Your task to perform on an android device: Turn off the flashlight Image 0: 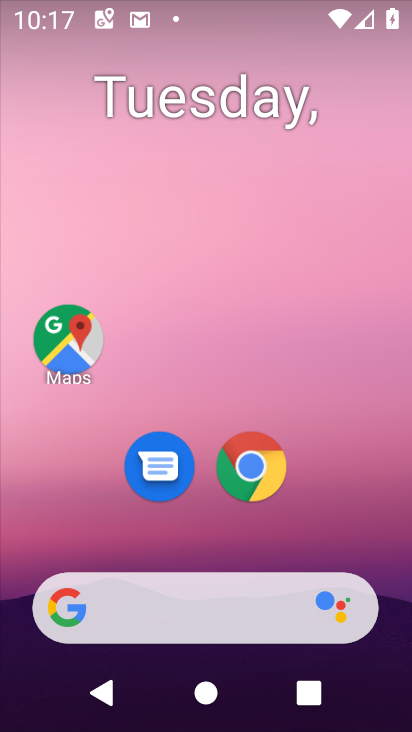
Step 0: press home button
Your task to perform on an android device: Turn off the flashlight Image 1: 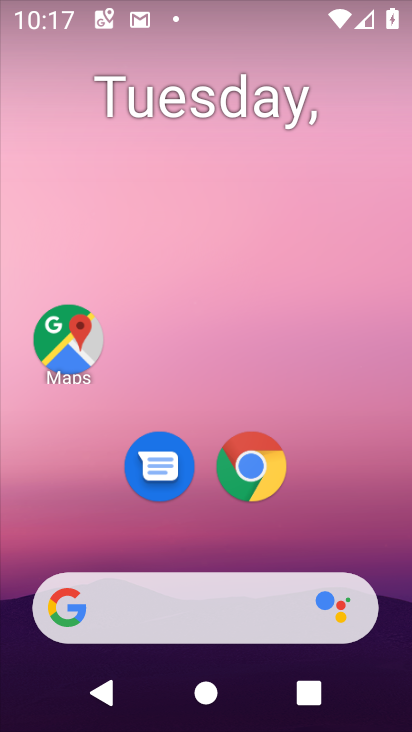
Step 1: drag from (245, 634) to (244, 185)
Your task to perform on an android device: Turn off the flashlight Image 2: 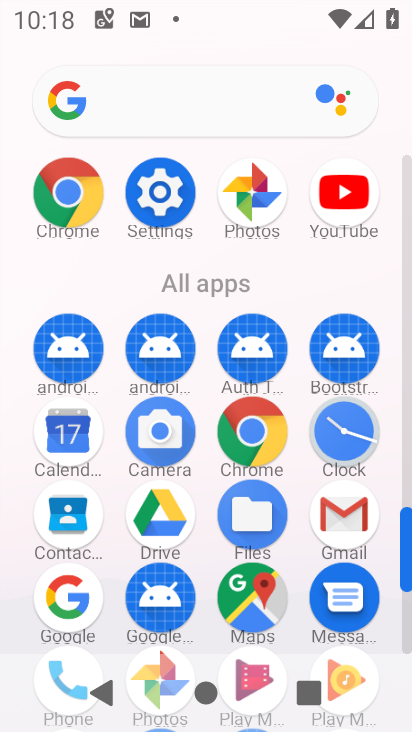
Step 2: click (160, 194)
Your task to perform on an android device: Turn off the flashlight Image 3: 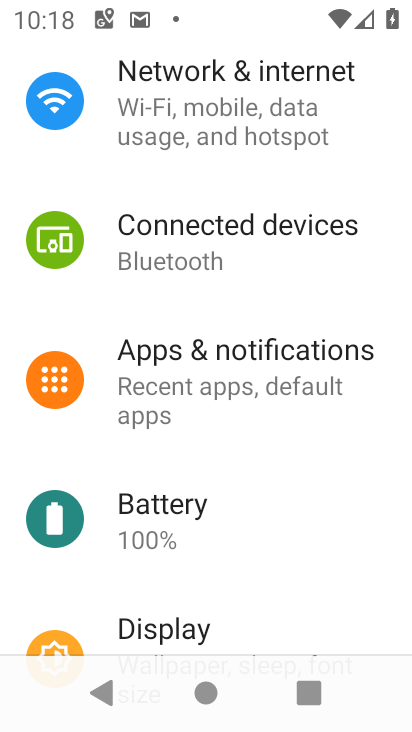
Step 3: drag from (168, 221) to (102, 567)
Your task to perform on an android device: Turn off the flashlight Image 4: 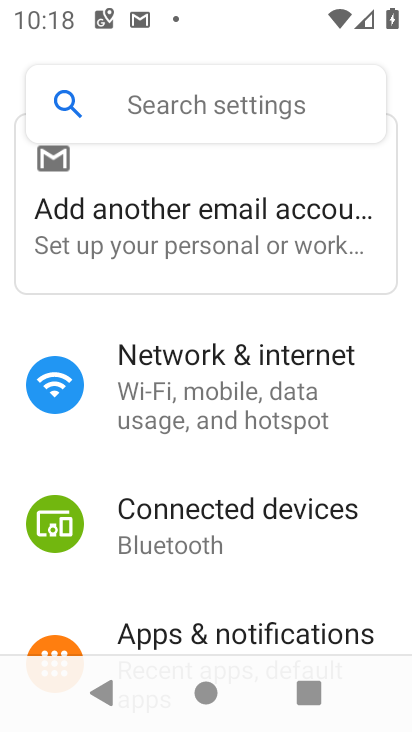
Step 4: click (172, 105)
Your task to perform on an android device: Turn off the flashlight Image 5: 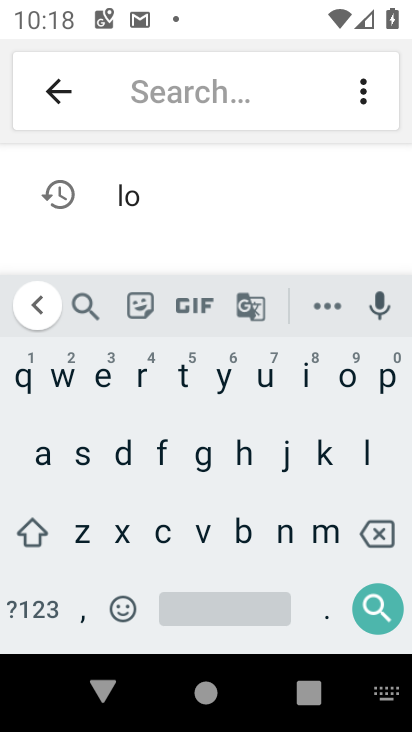
Step 5: click (155, 454)
Your task to perform on an android device: Turn off the flashlight Image 6: 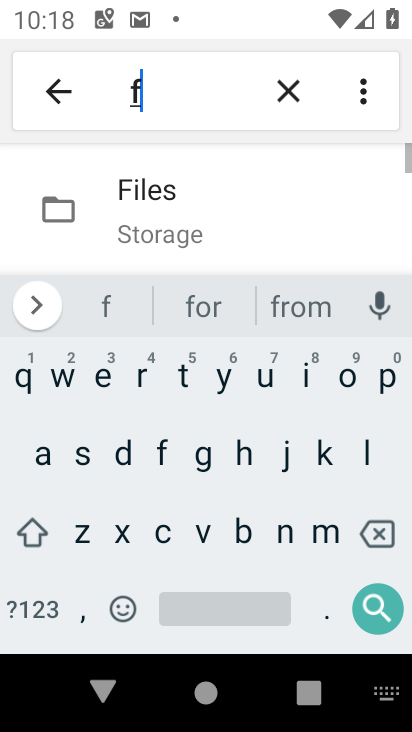
Step 6: click (372, 448)
Your task to perform on an android device: Turn off the flashlight Image 7: 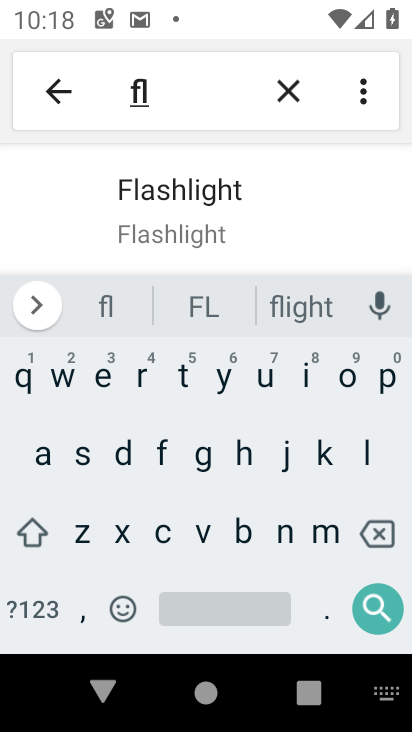
Step 7: click (170, 192)
Your task to perform on an android device: Turn off the flashlight Image 8: 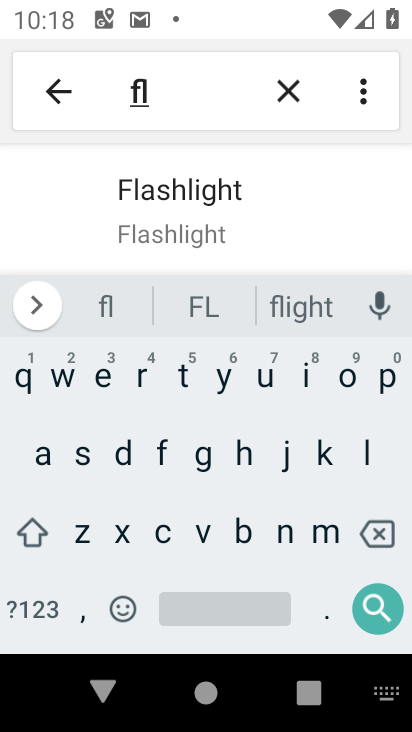
Step 8: click (170, 192)
Your task to perform on an android device: Turn off the flashlight Image 9: 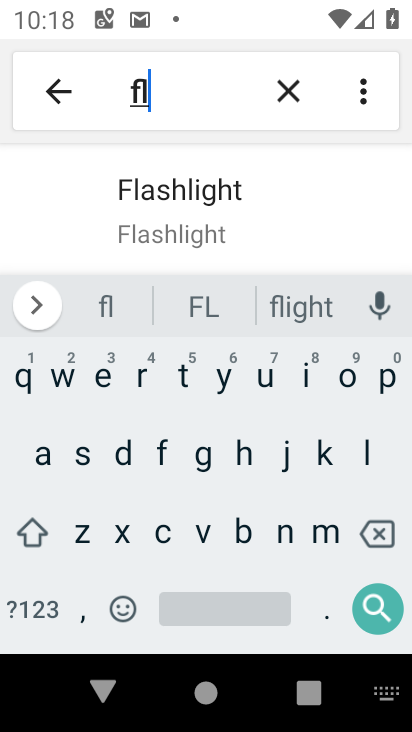
Step 9: task complete